Your task to perform on an android device: Open Amazon Image 0: 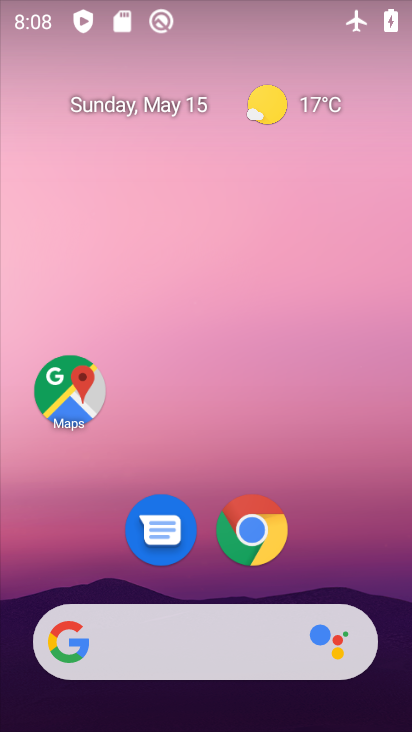
Step 0: click (249, 532)
Your task to perform on an android device: Open Amazon Image 1: 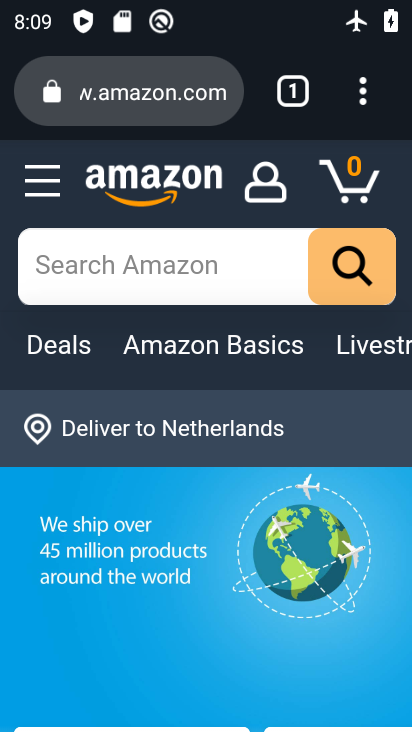
Step 1: task complete